Your task to perform on an android device: Go to Amazon Image 0: 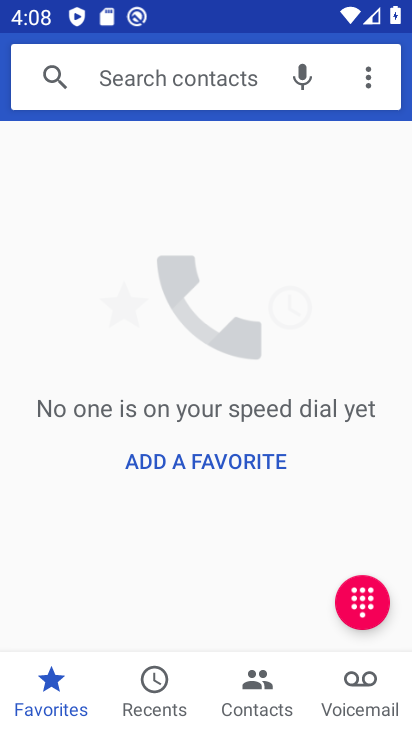
Step 0: press home button
Your task to perform on an android device: Go to Amazon Image 1: 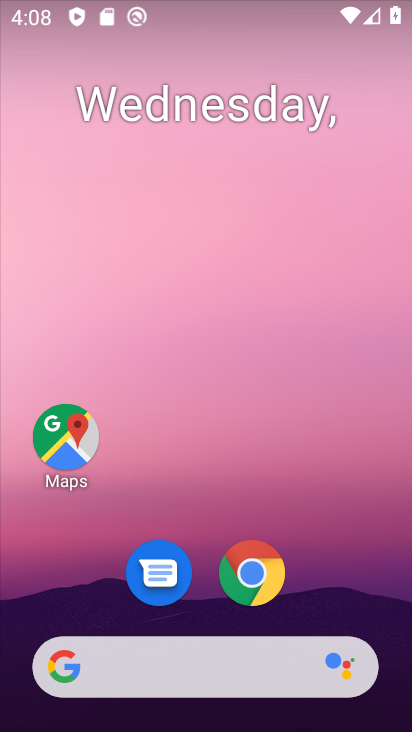
Step 1: click (248, 556)
Your task to perform on an android device: Go to Amazon Image 2: 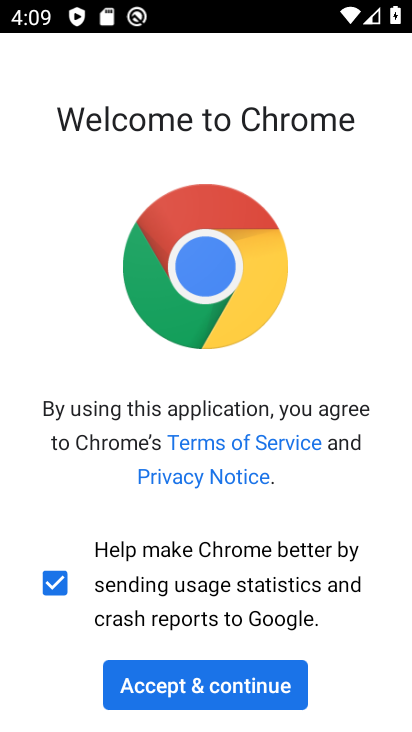
Step 2: click (233, 692)
Your task to perform on an android device: Go to Amazon Image 3: 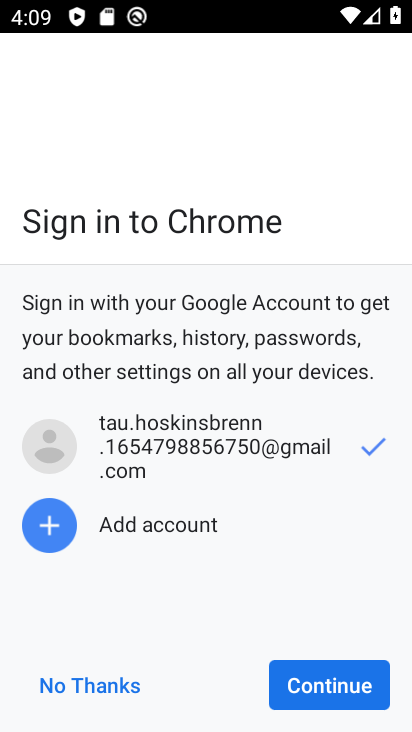
Step 3: click (344, 686)
Your task to perform on an android device: Go to Amazon Image 4: 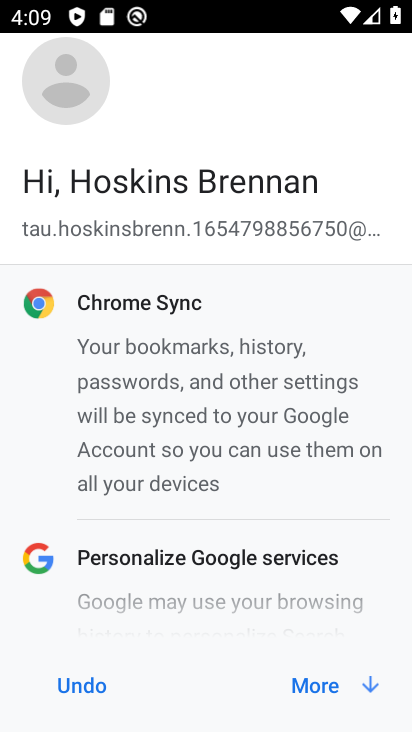
Step 4: click (342, 687)
Your task to perform on an android device: Go to Amazon Image 5: 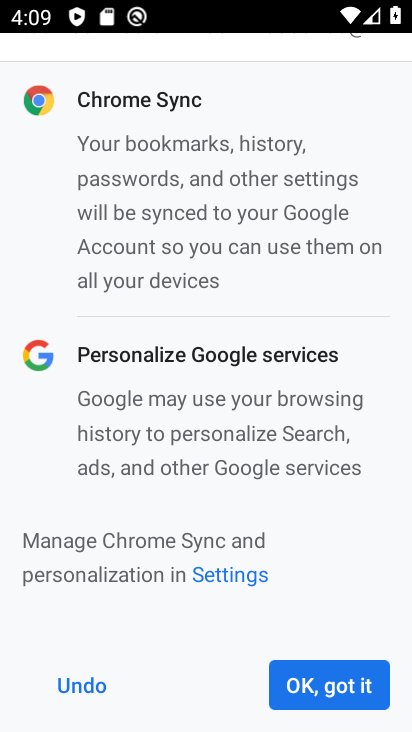
Step 5: click (328, 699)
Your task to perform on an android device: Go to Amazon Image 6: 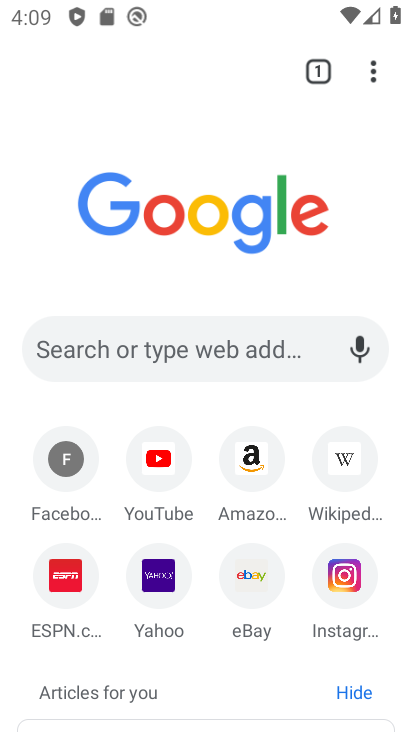
Step 6: click (256, 476)
Your task to perform on an android device: Go to Amazon Image 7: 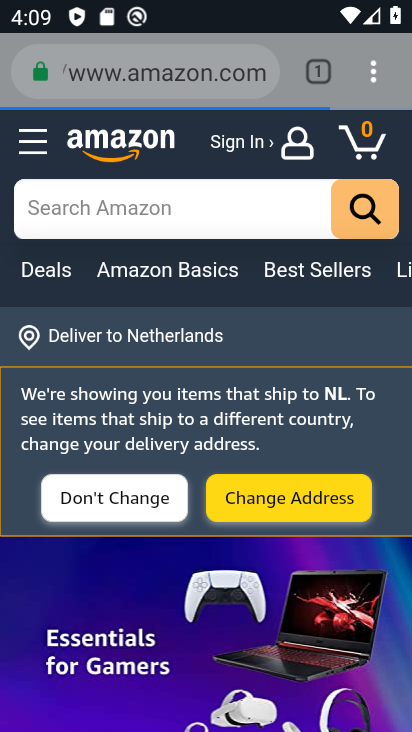
Step 7: task complete